Your task to perform on an android device: What is the news today? Image 0: 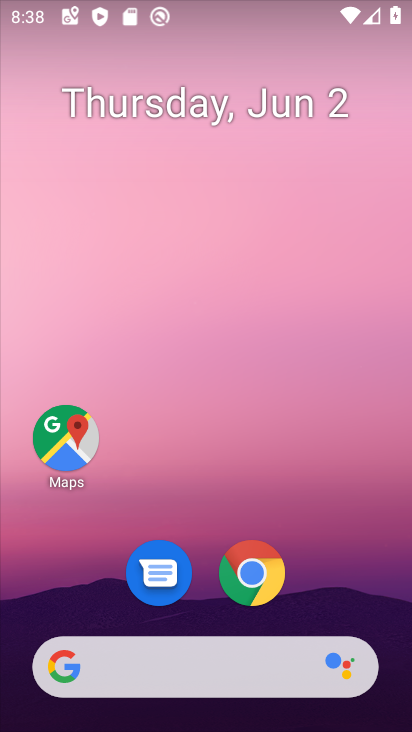
Step 0: click (250, 585)
Your task to perform on an android device: What is the news today? Image 1: 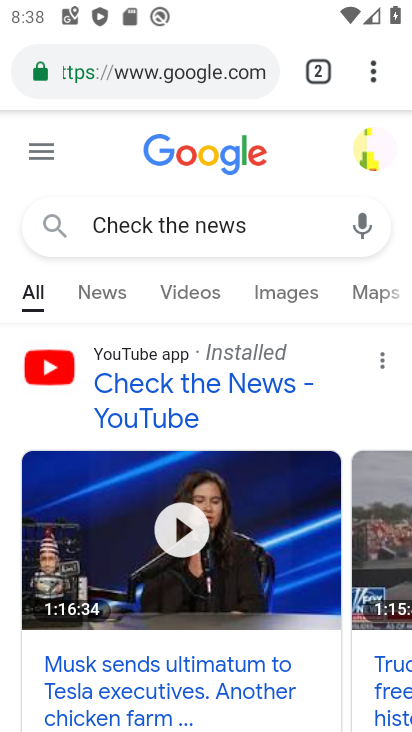
Step 1: click (220, 61)
Your task to perform on an android device: What is the news today? Image 2: 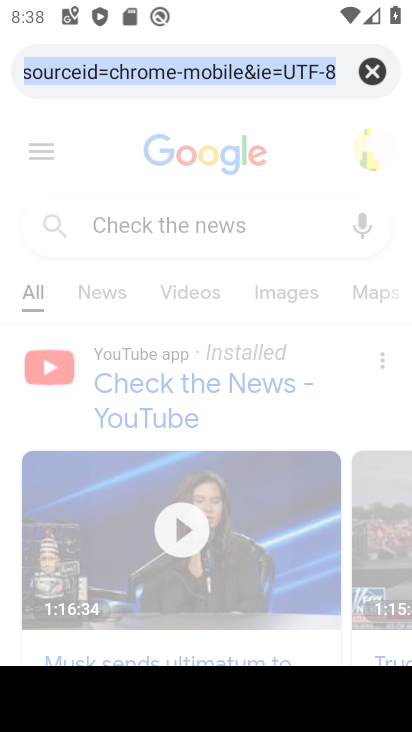
Step 2: click (373, 66)
Your task to perform on an android device: What is the news today? Image 3: 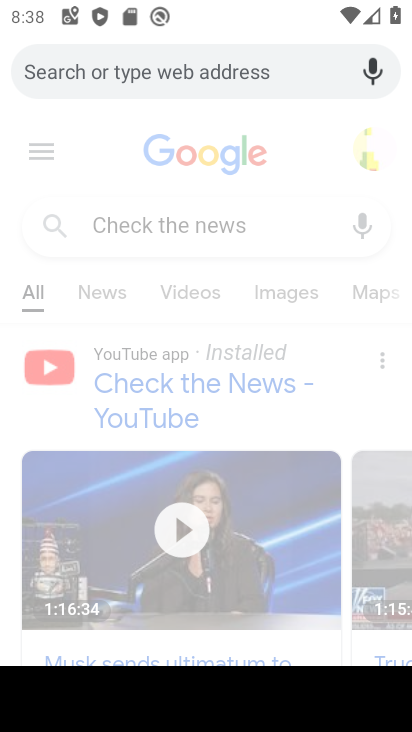
Step 3: type "What is the news today?"
Your task to perform on an android device: What is the news today? Image 4: 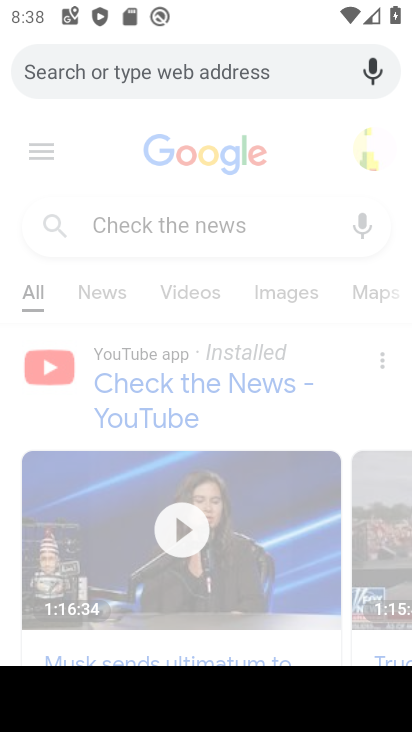
Step 4: click (221, 119)
Your task to perform on an android device: What is the news today? Image 5: 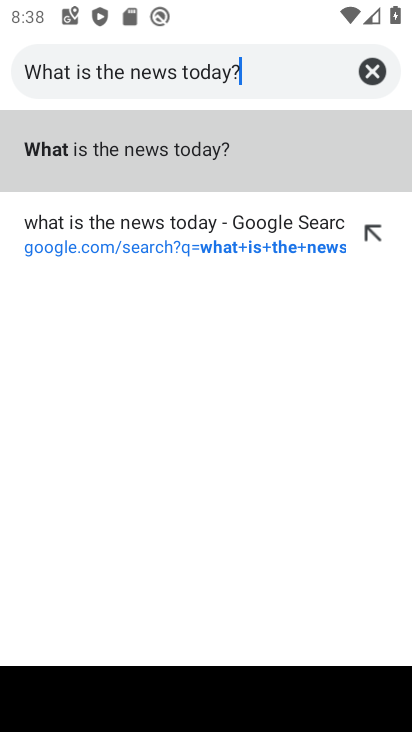
Step 5: type ""
Your task to perform on an android device: What is the news today? Image 6: 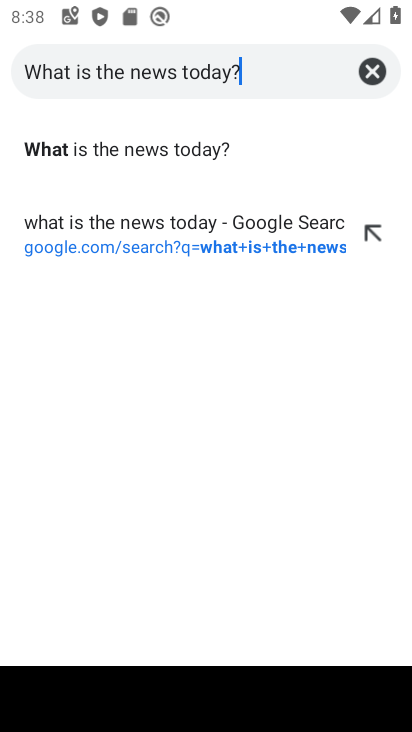
Step 6: click (274, 158)
Your task to perform on an android device: What is the news today? Image 7: 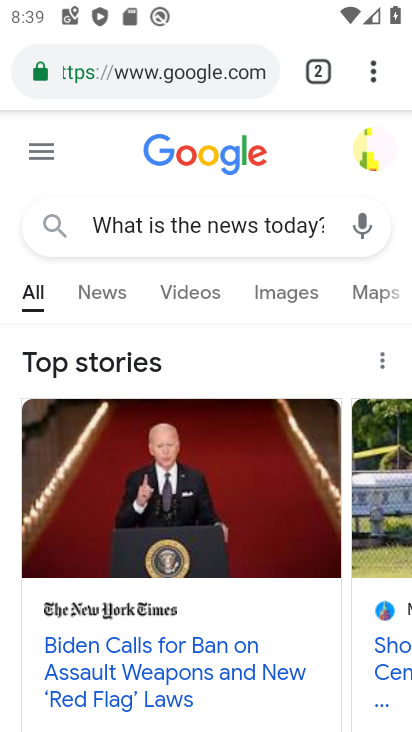
Step 7: task complete